Your task to perform on an android device: create a new album in the google photos Image 0: 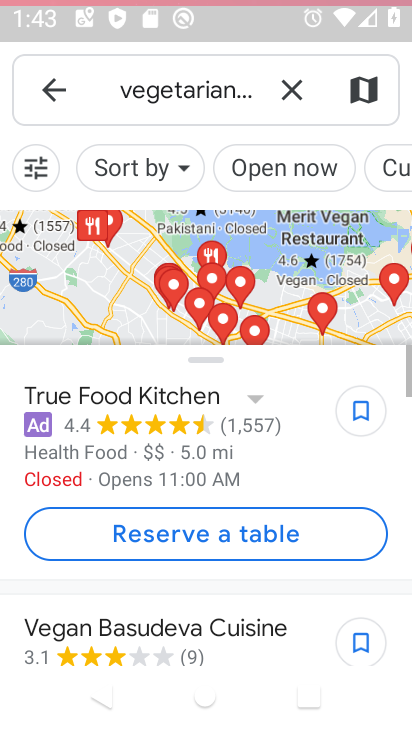
Step 0: drag from (196, 564) to (177, 16)
Your task to perform on an android device: create a new album in the google photos Image 1: 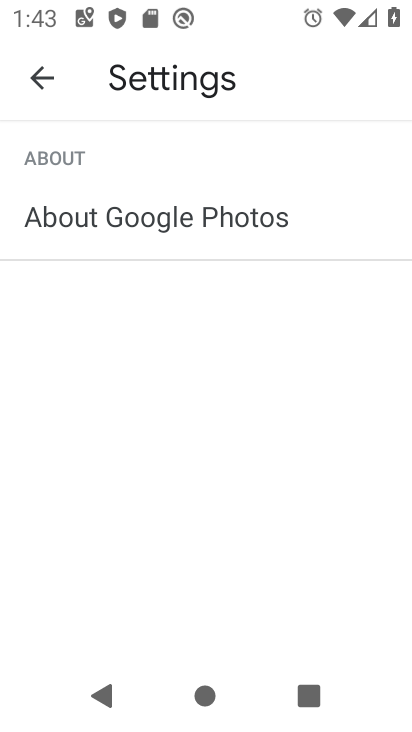
Step 1: click (39, 65)
Your task to perform on an android device: create a new album in the google photos Image 2: 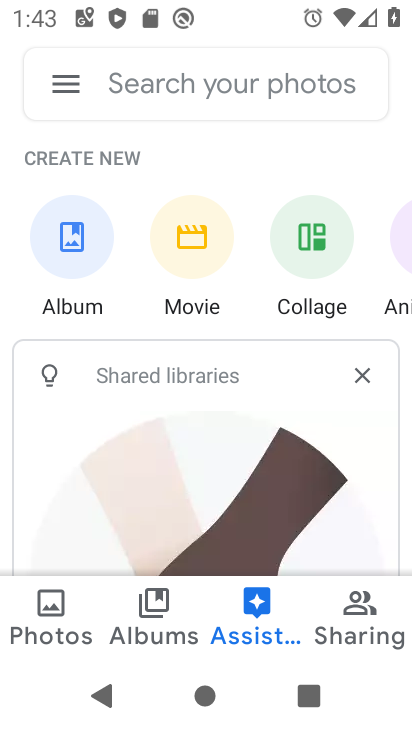
Step 2: click (170, 602)
Your task to perform on an android device: create a new album in the google photos Image 3: 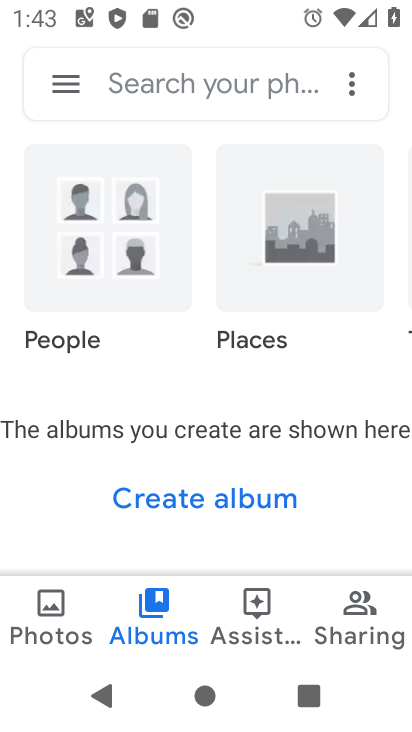
Step 3: click (202, 506)
Your task to perform on an android device: create a new album in the google photos Image 4: 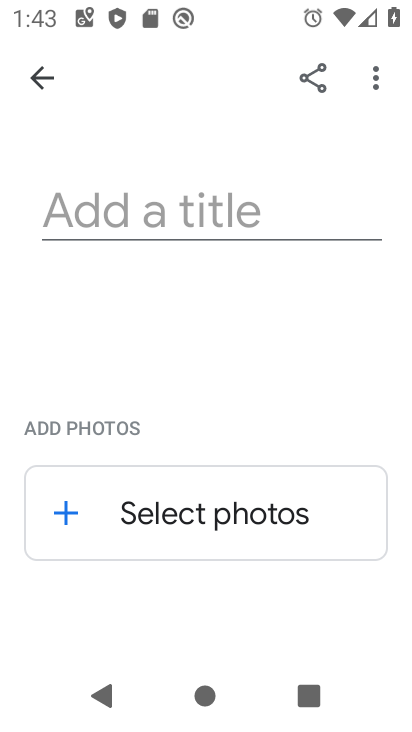
Step 4: click (105, 188)
Your task to perform on an android device: create a new album in the google photos Image 5: 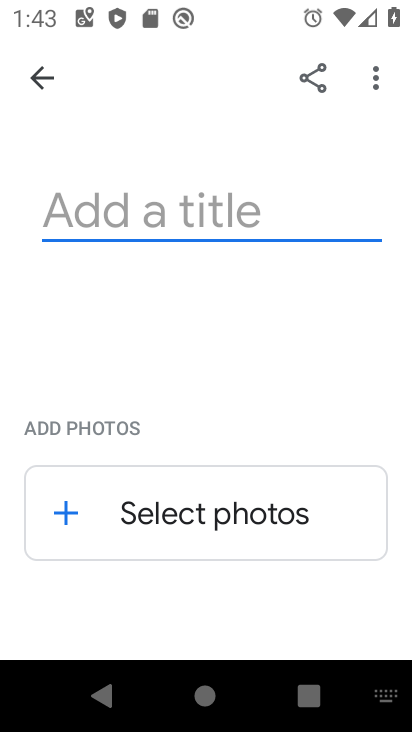
Step 5: type "     v  bb"
Your task to perform on an android device: create a new album in the google photos Image 6: 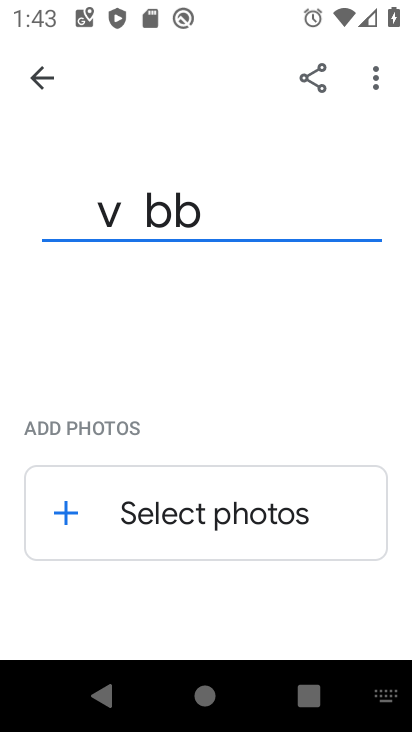
Step 6: click (130, 496)
Your task to perform on an android device: create a new album in the google photos Image 7: 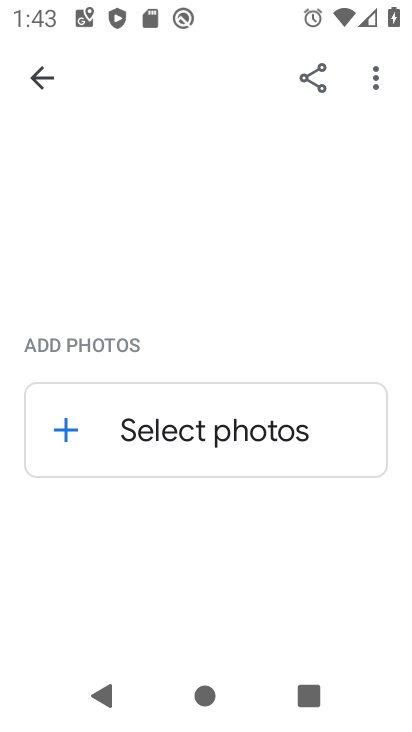
Step 7: click (187, 433)
Your task to perform on an android device: create a new album in the google photos Image 8: 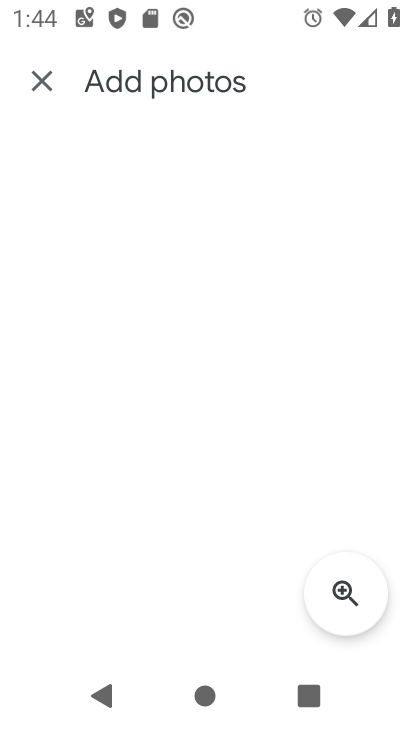
Step 8: task complete